Your task to perform on an android device: Open the web browser Image 0: 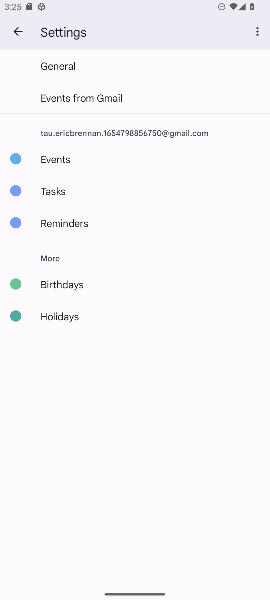
Step 0: press home button
Your task to perform on an android device: Open the web browser Image 1: 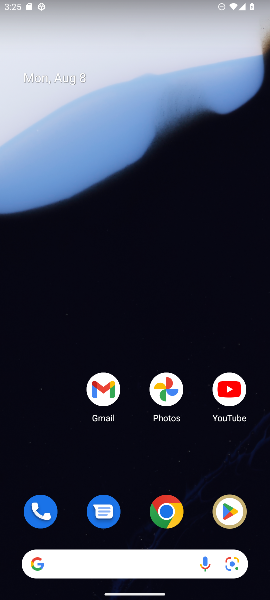
Step 1: drag from (143, 426) to (191, 46)
Your task to perform on an android device: Open the web browser Image 2: 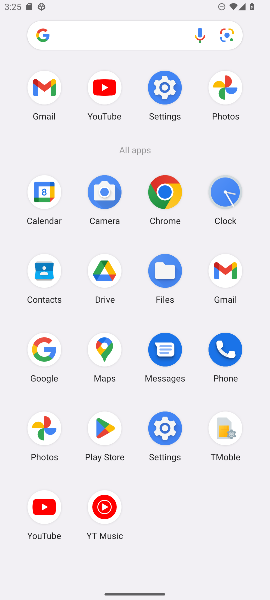
Step 2: click (167, 191)
Your task to perform on an android device: Open the web browser Image 3: 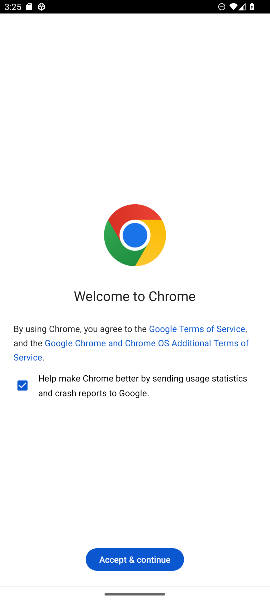
Step 3: click (136, 560)
Your task to perform on an android device: Open the web browser Image 4: 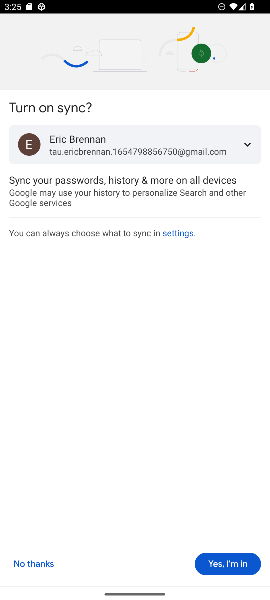
Step 4: click (211, 569)
Your task to perform on an android device: Open the web browser Image 5: 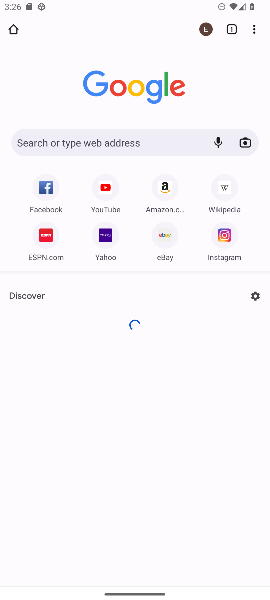
Step 5: task complete